Your task to perform on an android device: Go to Android settings Image 0: 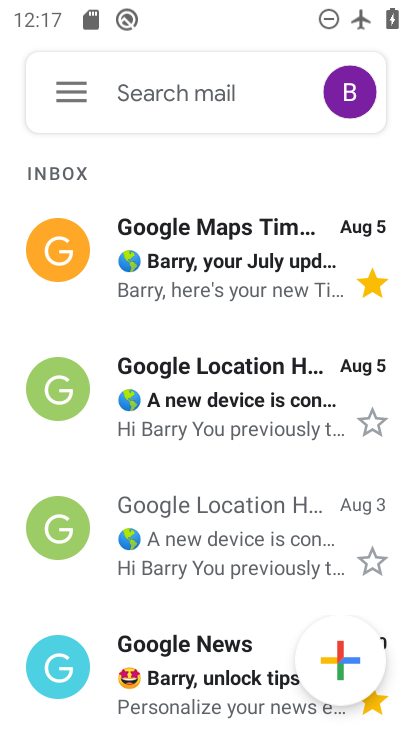
Step 0: press home button
Your task to perform on an android device: Go to Android settings Image 1: 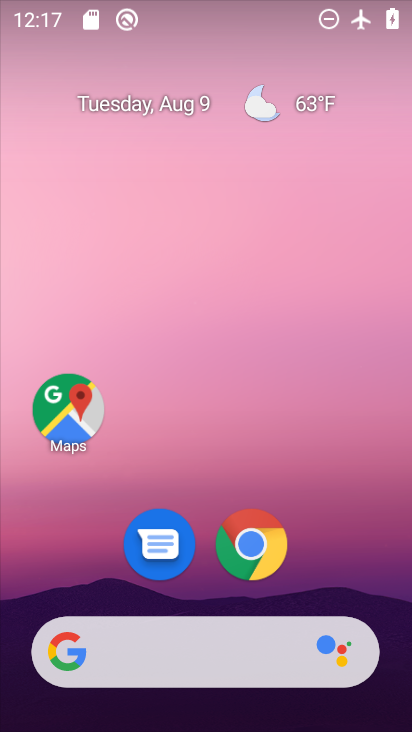
Step 1: drag from (202, 643) to (282, 128)
Your task to perform on an android device: Go to Android settings Image 2: 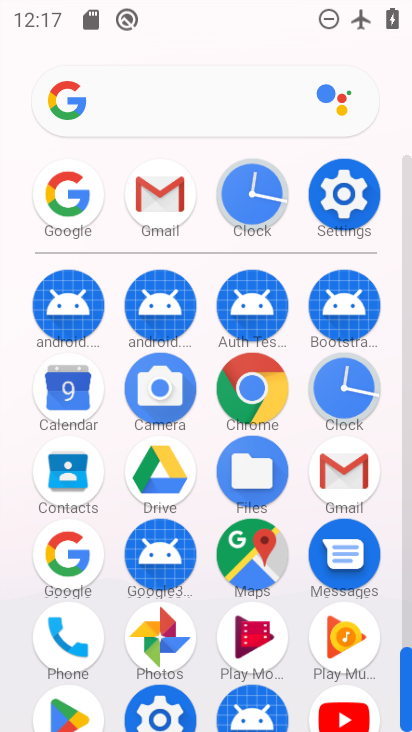
Step 2: click (340, 191)
Your task to perform on an android device: Go to Android settings Image 3: 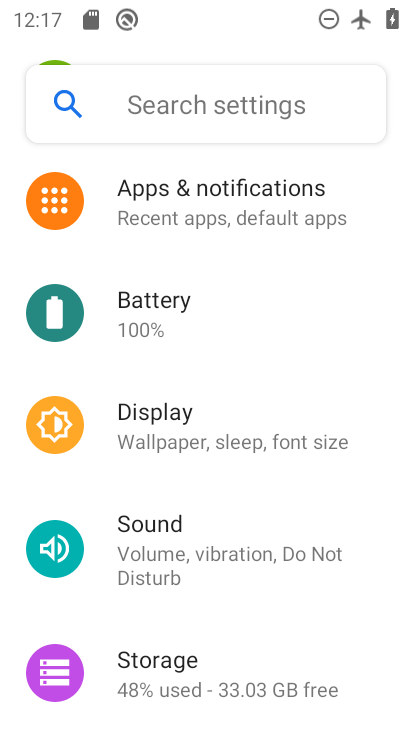
Step 3: task complete